Your task to perform on an android device: stop showing notifications on the lock screen Image 0: 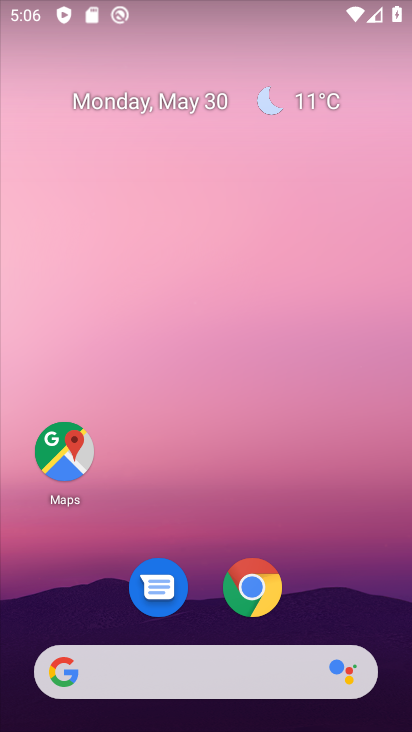
Step 0: drag from (260, 389) to (136, 11)
Your task to perform on an android device: stop showing notifications on the lock screen Image 1: 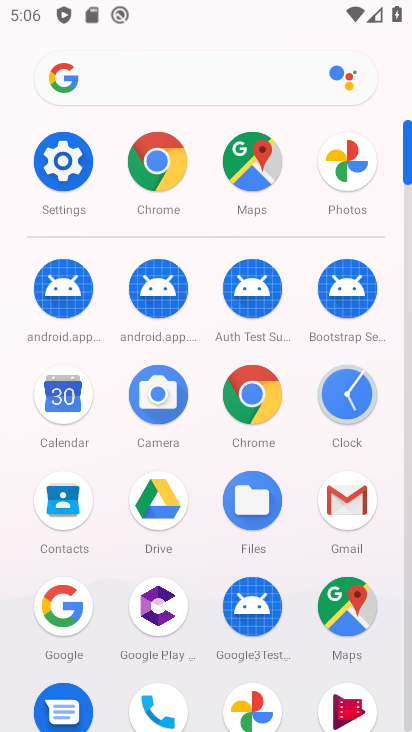
Step 1: drag from (2, 522) to (18, 223)
Your task to perform on an android device: stop showing notifications on the lock screen Image 2: 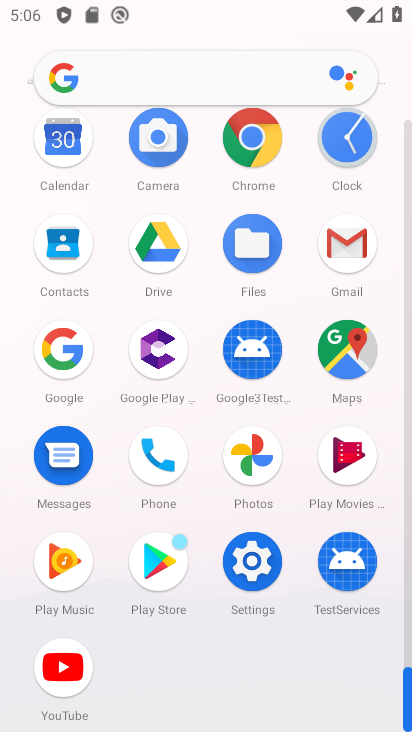
Step 2: click (250, 555)
Your task to perform on an android device: stop showing notifications on the lock screen Image 3: 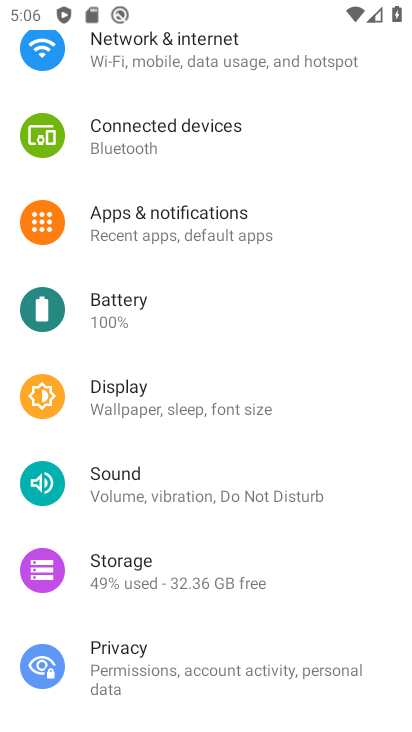
Step 3: drag from (235, 152) to (233, 496)
Your task to perform on an android device: stop showing notifications on the lock screen Image 4: 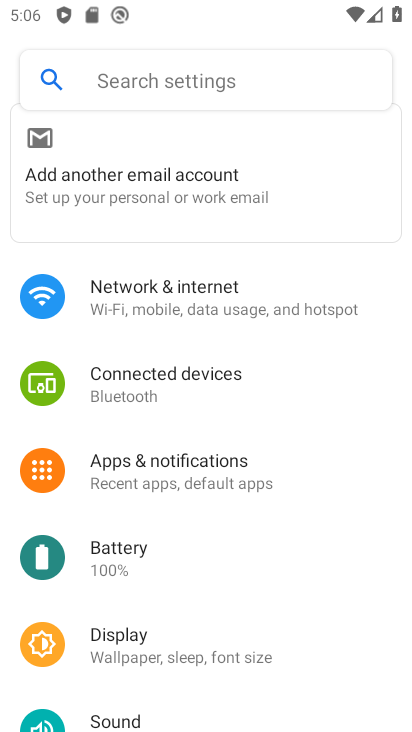
Step 4: click (197, 466)
Your task to perform on an android device: stop showing notifications on the lock screen Image 5: 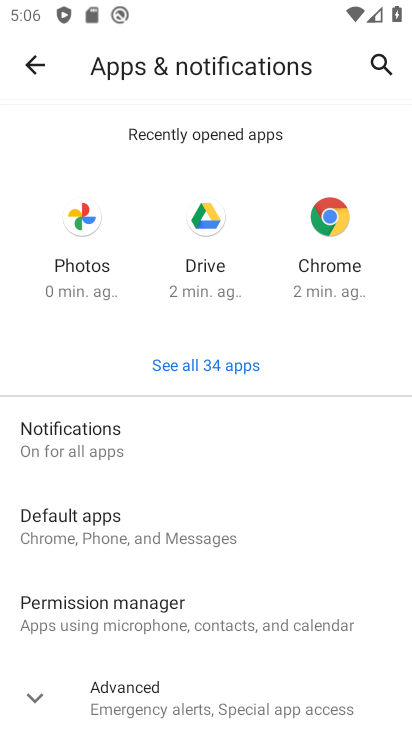
Step 5: drag from (277, 563) to (270, 171)
Your task to perform on an android device: stop showing notifications on the lock screen Image 6: 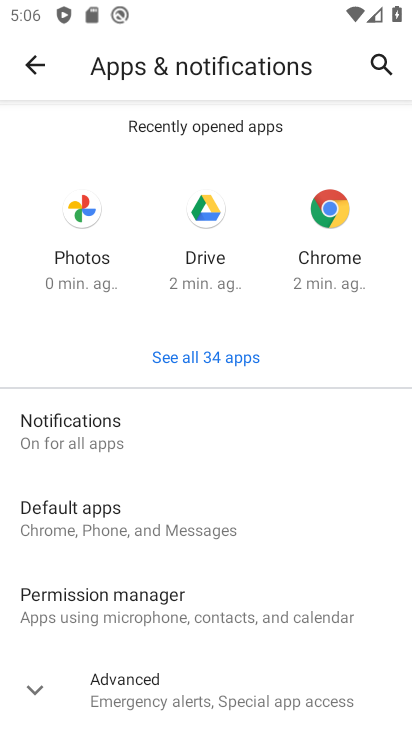
Step 6: click (29, 674)
Your task to perform on an android device: stop showing notifications on the lock screen Image 7: 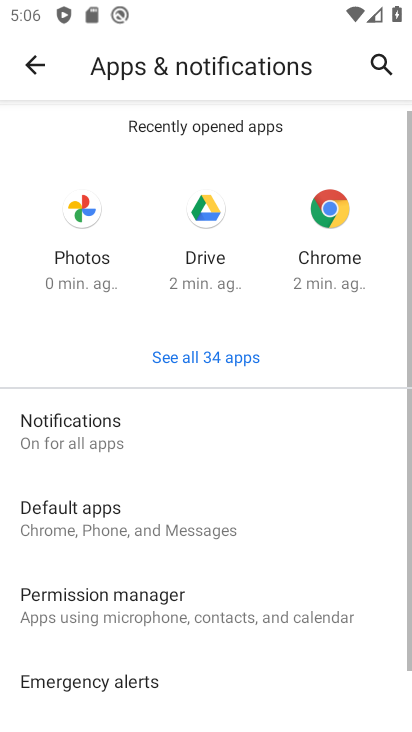
Step 7: drag from (221, 628) to (247, 280)
Your task to perform on an android device: stop showing notifications on the lock screen Image 8: 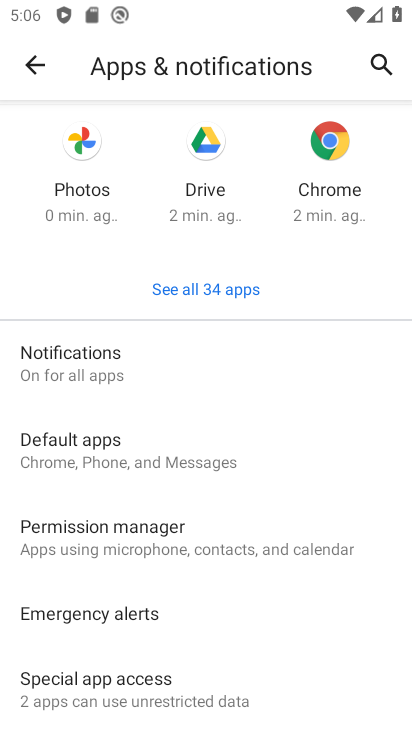
Step 8: click (137, 380)
Your task to perform on an android device: stop showing notifications on the lock screen Image 9: 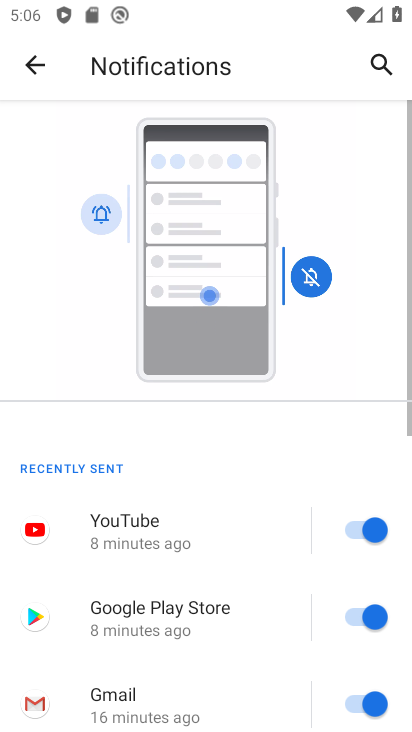
Step 9: drag from (211, 629) to (221, 165)
Your task to perform on an android device: stop showing notifications on the lock screen Image 10: 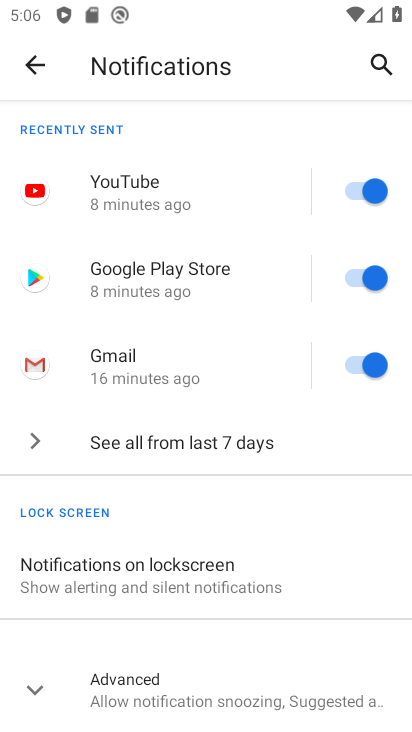
Step 10: click (6, 698)
Your task to perform on an android device: stop showing notifications on the lock screen Image 11: 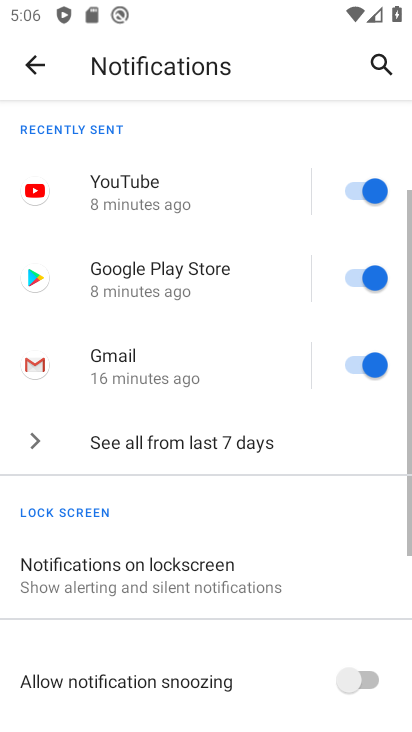
Step 11: drag from (229, 572) to (239, 193)
Your task to perform on an android device: stop showing notifications on the lock screen Image 12: 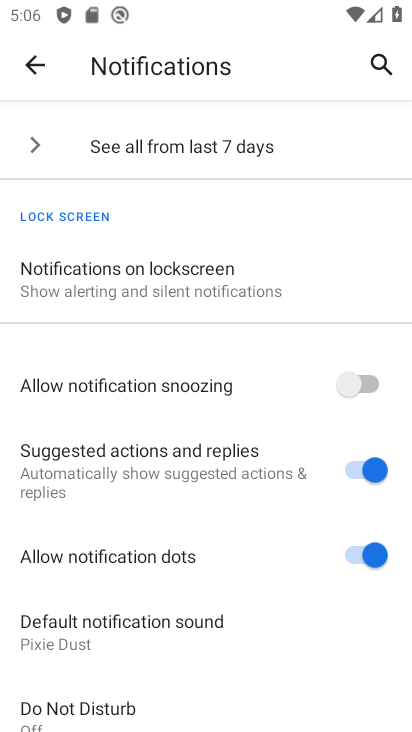
Step 12: click (185, 282)
Your task to perform on an android device: stop showing notifications on the lock screen Image 13: 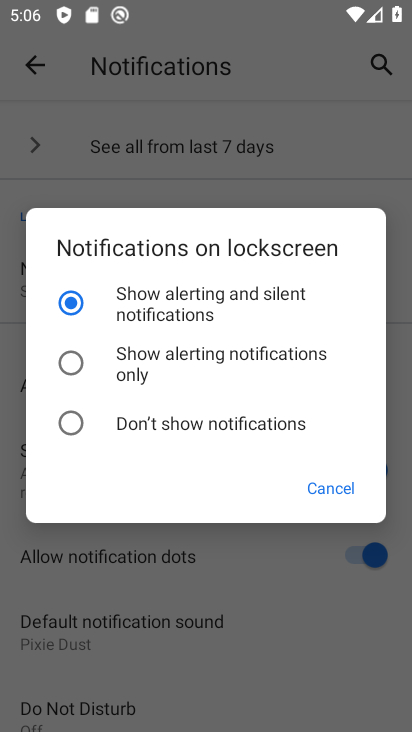
Step 13: click (186, 282)
Your task to perform on an android device: stop showing notifications on the lock screen Image 14: 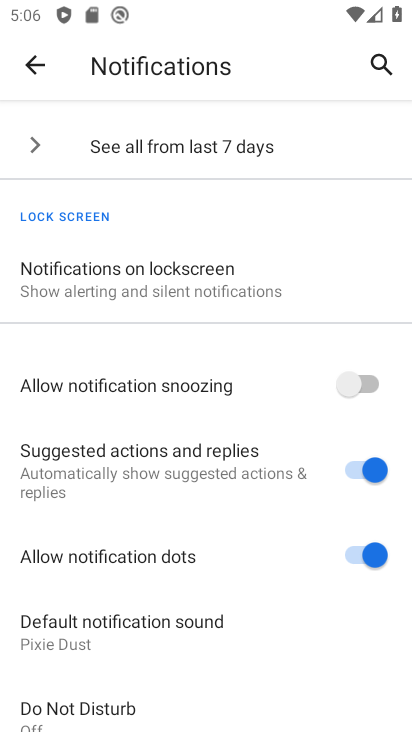
Step 14: click (167, 290)
Your task to perform on an android device: stop showing notifications on the lock screen Image 15: 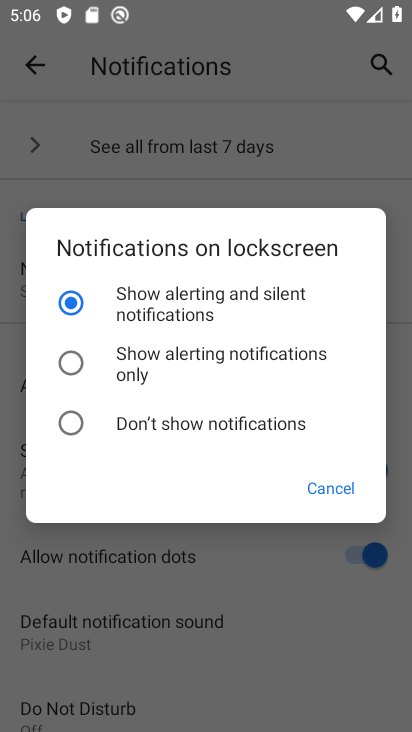
Step 15: click (133, 434)
Your task to perform on an android device: stop showing notifications on the lock screen Image 16: 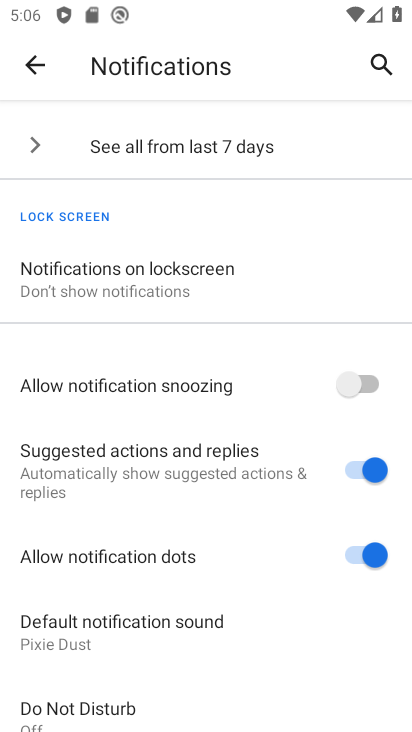
Step 16: task complete